Your task to perform on an android device: check battery use Image 0: 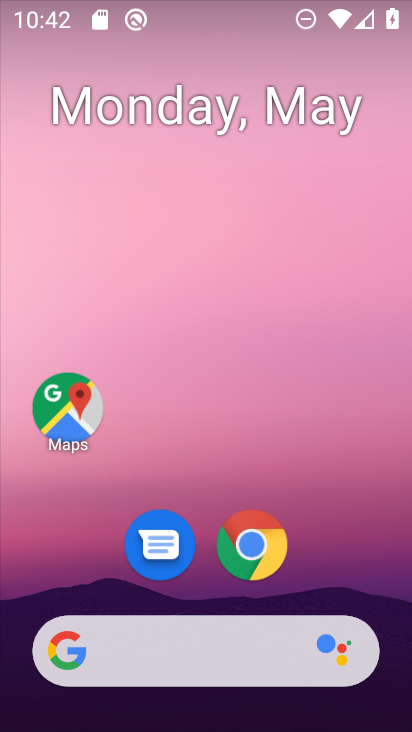
Step 0: drag from (345, 497) to (224, 66)
Your task to perform on an android device: check battery use Image 1: 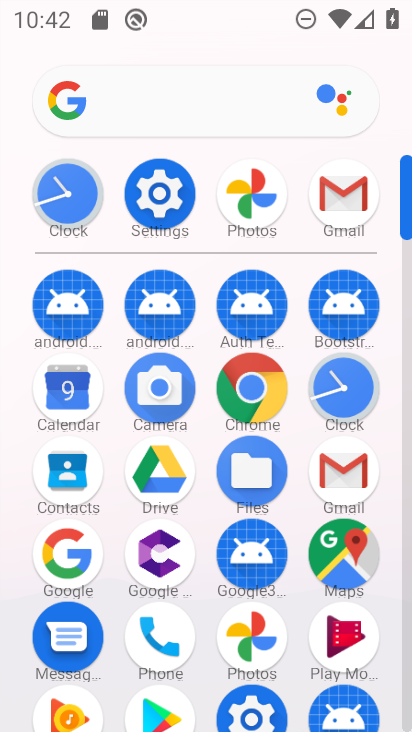
Step 1: click (151, 181)
Your task to perform on an android device: check battery use Image 2: 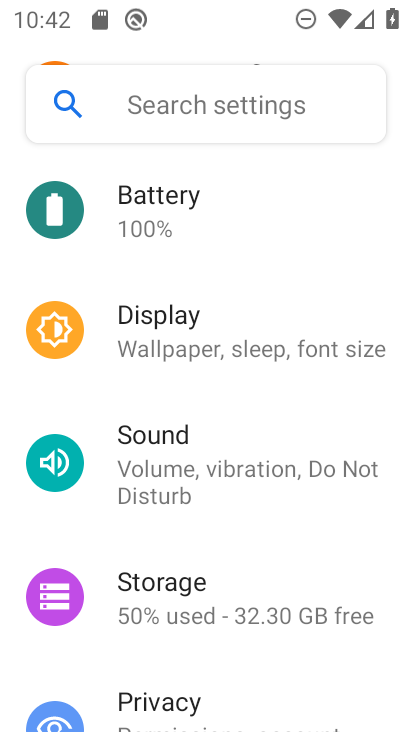
Step 2: click (147, 187)
Your task to perform on an android device: check battery use Image 3: 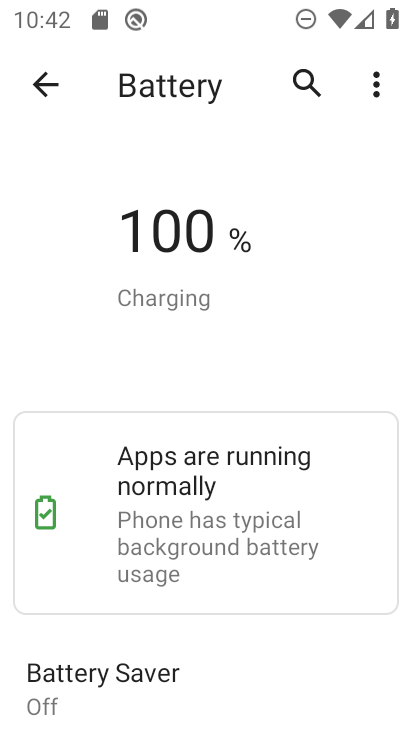
Step 3: task complete